Your task to perform on an android device: Turn off the flashlight Image 0: 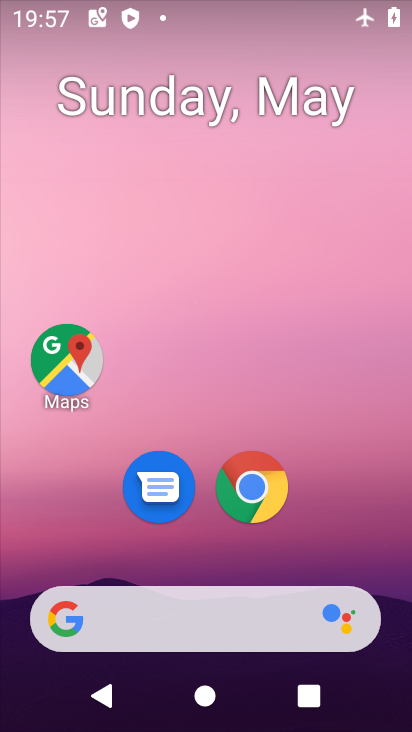
Step 0: drag from (268, 0) to (241, 394)
Your task to perform on an android device: Turn off the flashlight Image 1: 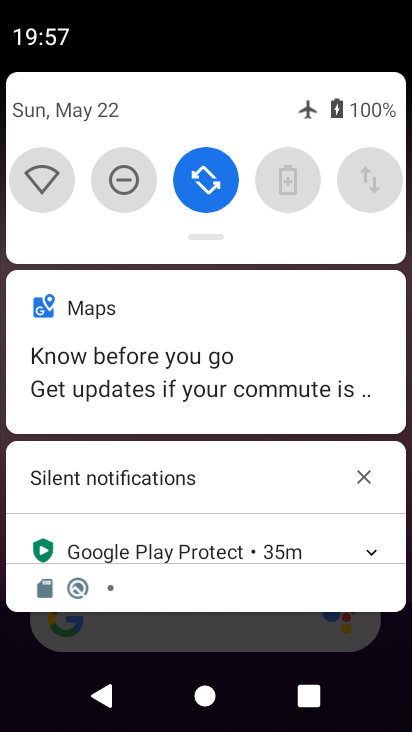
Step 1: drag from (240, 97) to (230, 460)
Your task to perform on an android device: Turn off the flashlight Image 2: 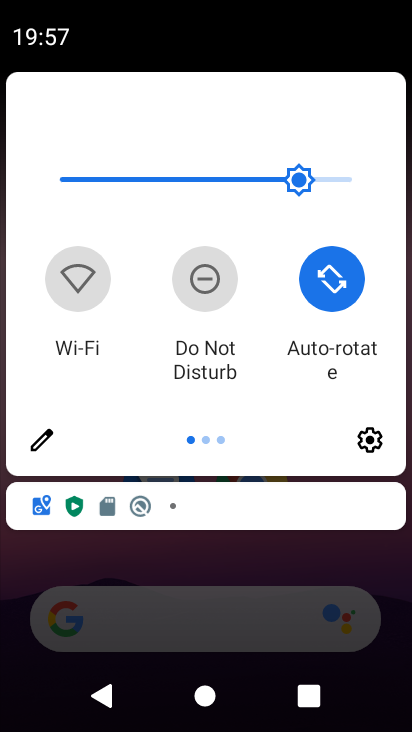
Step 2: click (45, 446)
Your task to perform on an android device: Turn off the flashlight Image 3: 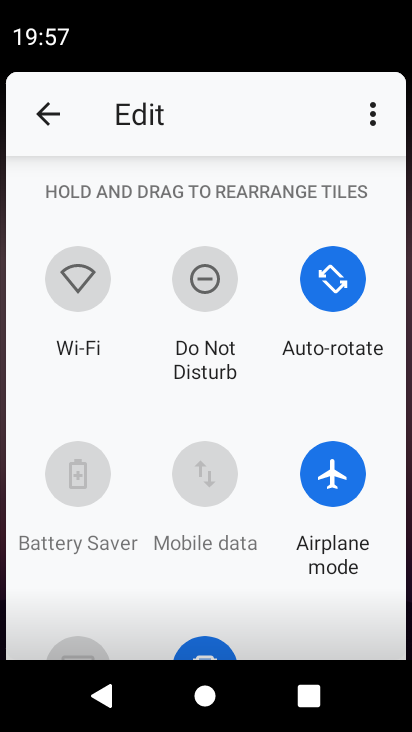
Step 3: task complete